Your task to perform on an android device: open device folders in google photos Image 0: 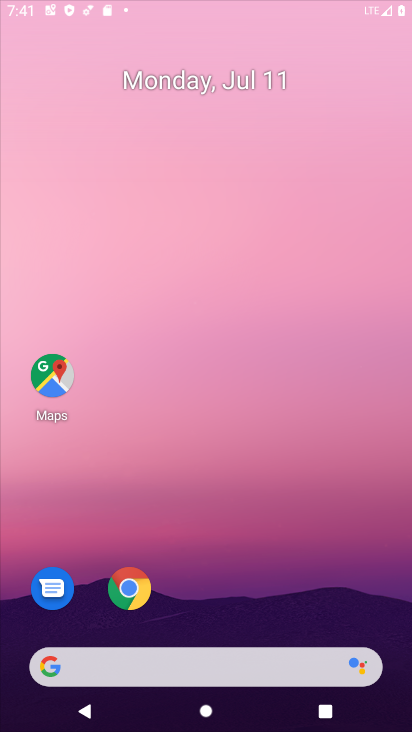
Step 0: drag from (325, 597) to (206, 53)
Your task to perform on an android device: open device folders in google photos Image 1: 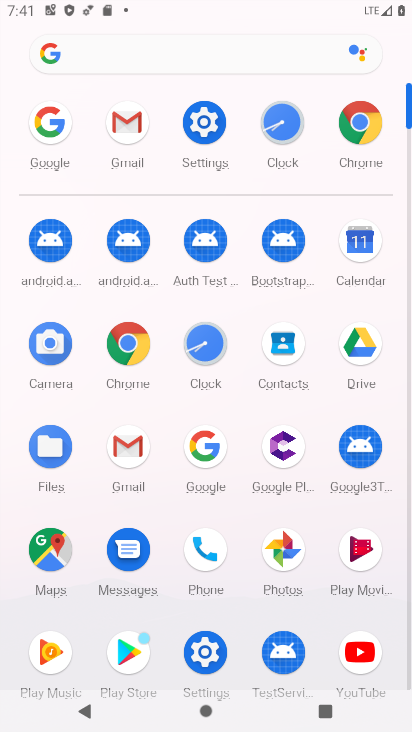
Step 1: click (282, 529)
Your task to perform on an android device: open device folders in google photos Image 2: 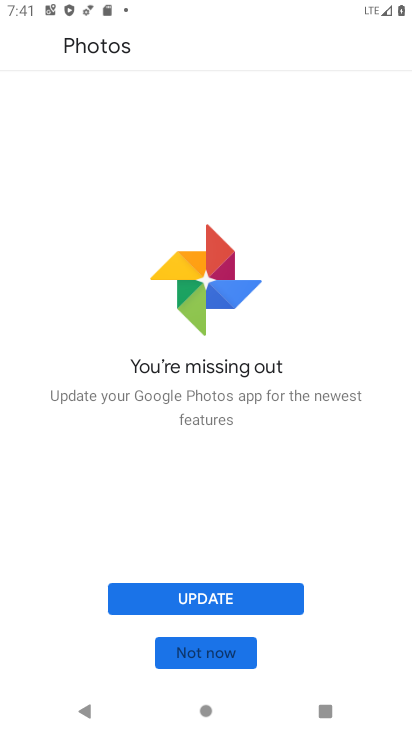
Step 2: click (165, 605)
Your task to perform on an android device: open device folders in google photos Image 3: 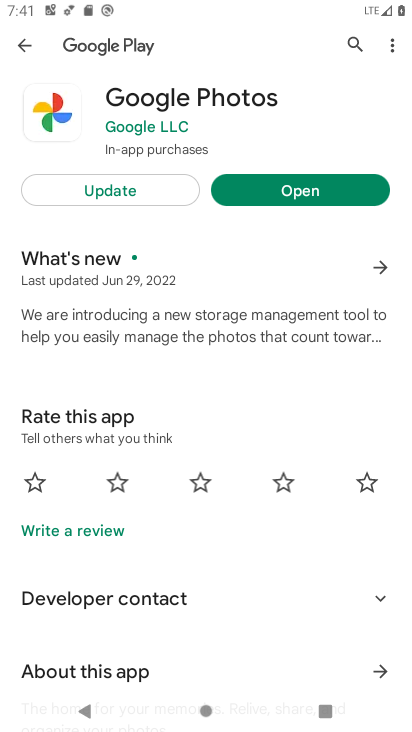
Step 3: click (154, 188)
Your task to perform on an android device: open device folders in google photos Image 4: 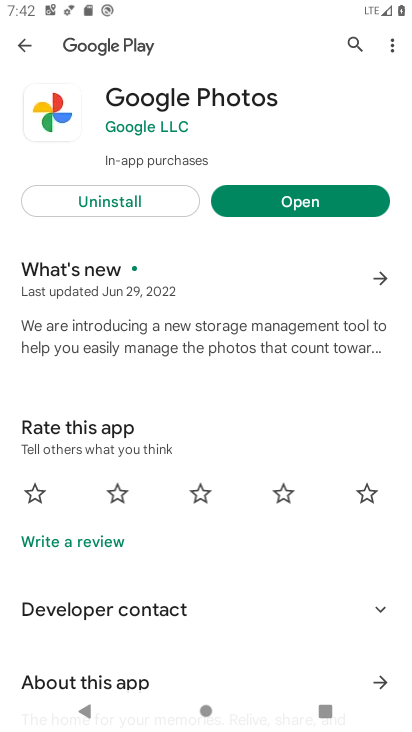
Step 4: click (262, 201)
Your task to perform on an android device: open device folders in google photos Image 5: 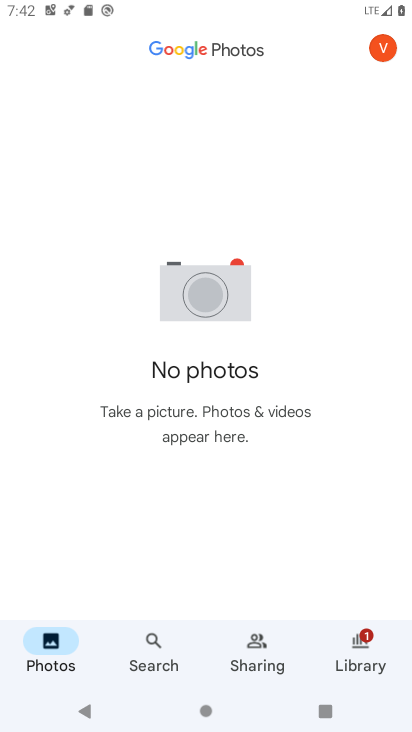
Step 5: task complete